Your task to perform on an android device: refresh tabs in the chrome app Image 0: 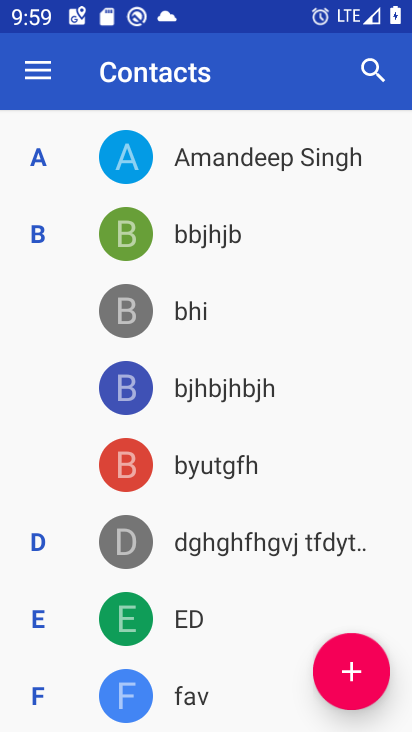
Step 0: press home button
Your task to perform on an android device: refresh tabs in the chrome app Image 1: 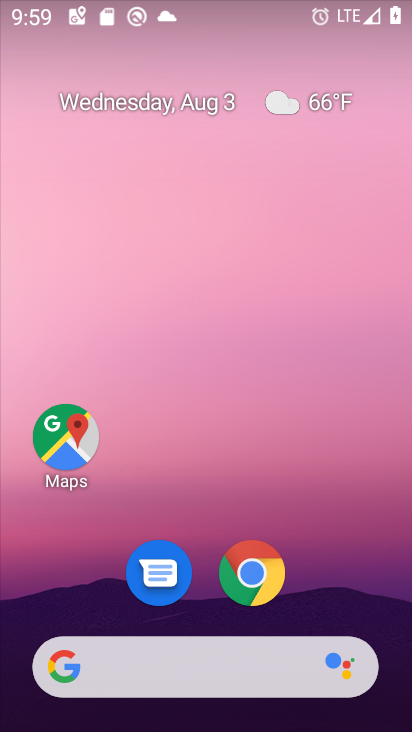
Step 1: click (254, 565)
Your task to perform on an android device: refresh tabs in the chrome app Image 2: 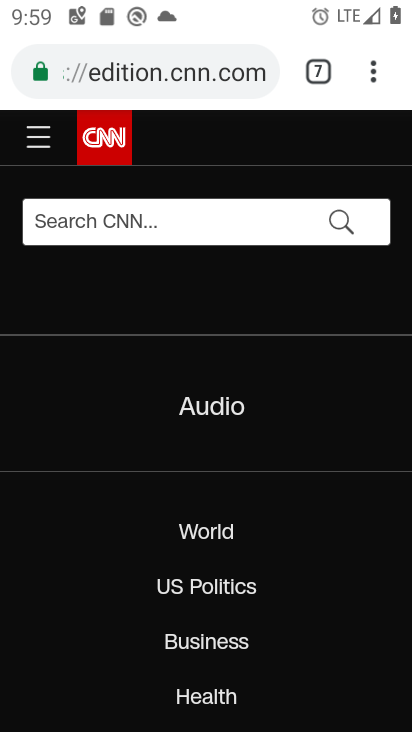
Step 2: click (376, 72)
Your task to perform on an android device: refresh tabs in the chrome app Image 3: 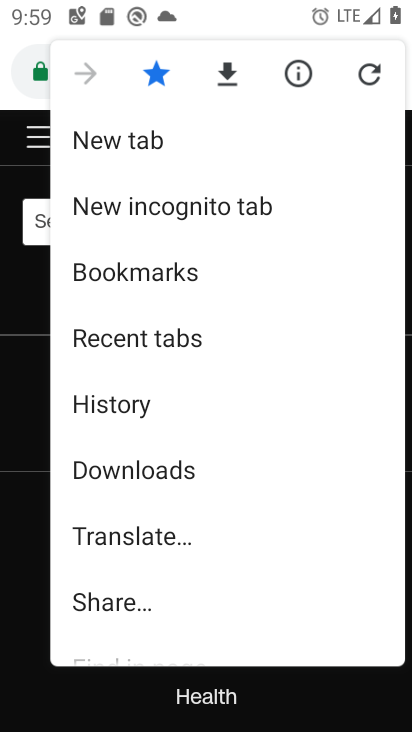
Step 3: click (376, 72)
Your task to perform on an android device: refresh tabs in the chrome app Image 4: 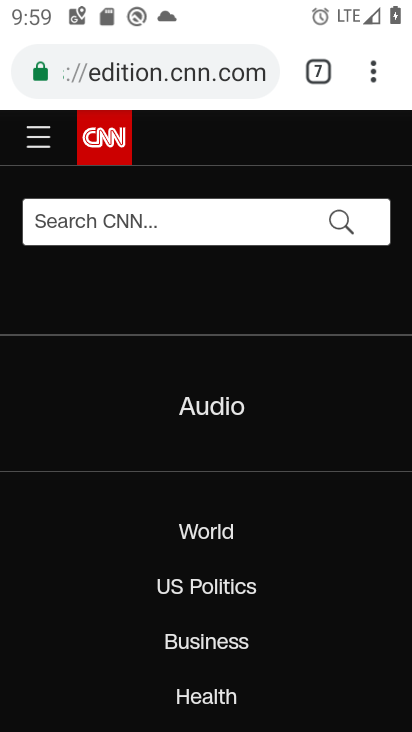
Step 4: task complete